Your task to perform on an android device: visit the assistant section in the google photos Image 0: 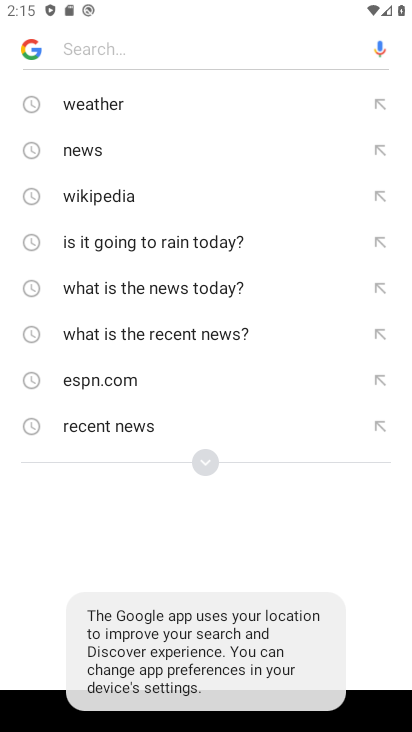
Step 0: press home button
Your task to perform on an android device: visit the assistant section in the google photos Image 1: 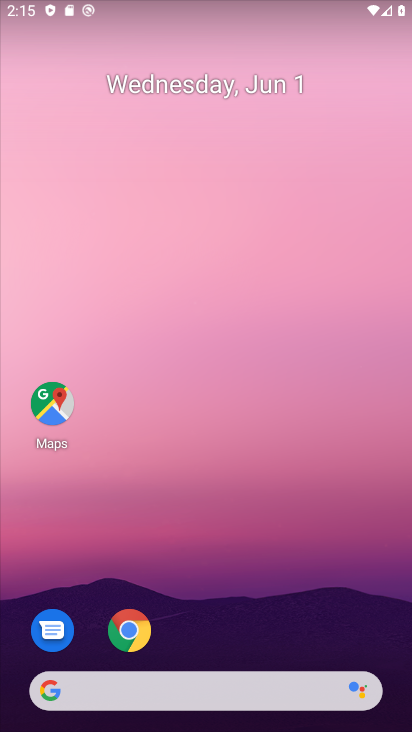
Step 1: drag from (244, 664) to (385, 139)
Your task to perform on an android device: visit the assistant section in the google photos Image 2: 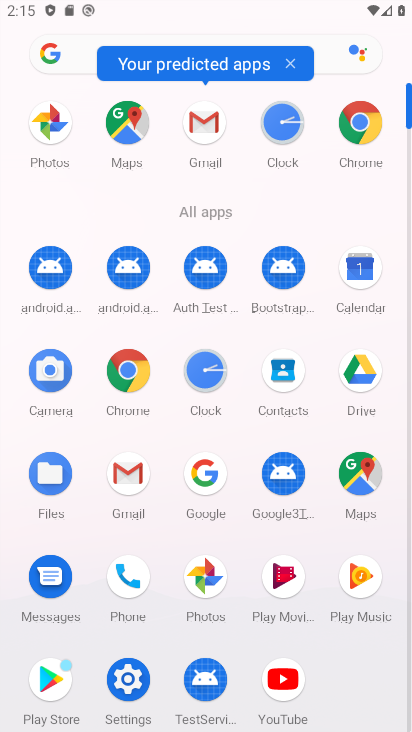
Step 2: click (211, 590)
Your task to perform on an android device: visit the assistant section in the google photos Image 3: 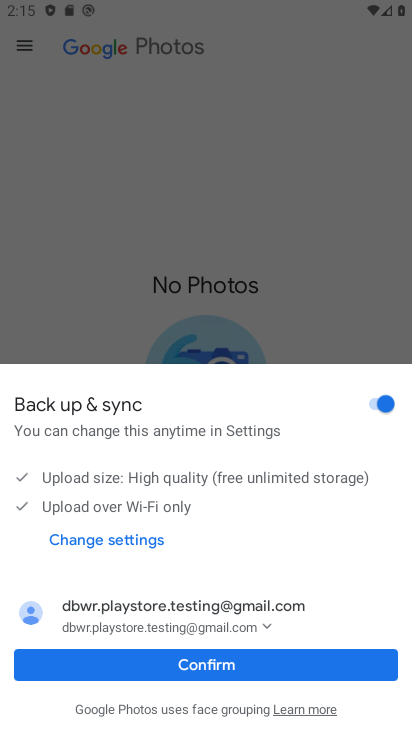
Step 3: click (212, 680)
Your task to perform on an android device: visit the assistant section in the google photos Image 4: 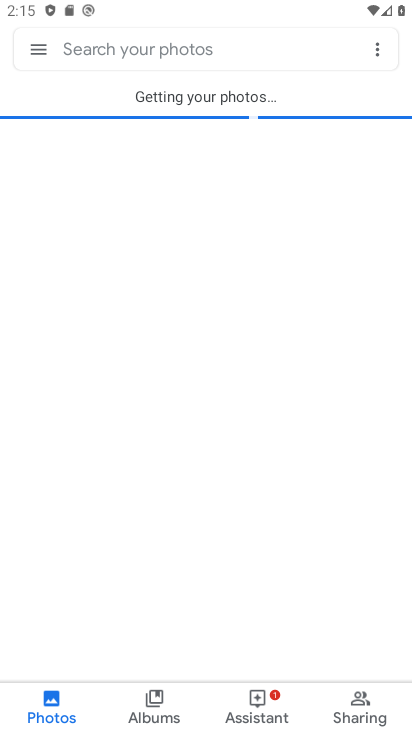
Step 4: click (284, 715)
Your task to perform on an android device: visit the assistant section in the google photos Image 5: 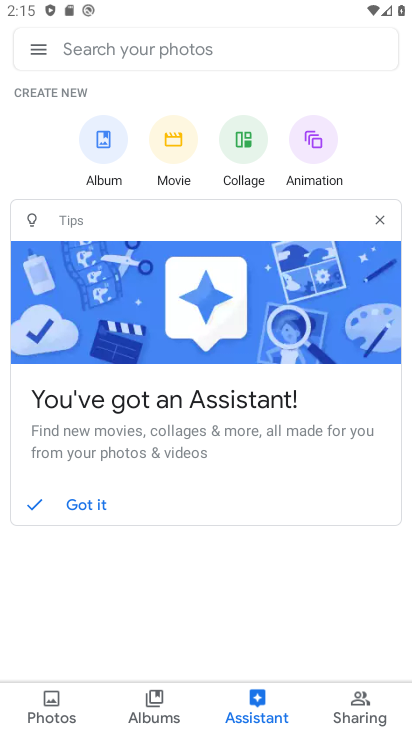
Step 5: task complete